Your task to perform on an android device: What's on my calendar tomorrow? Image 0: 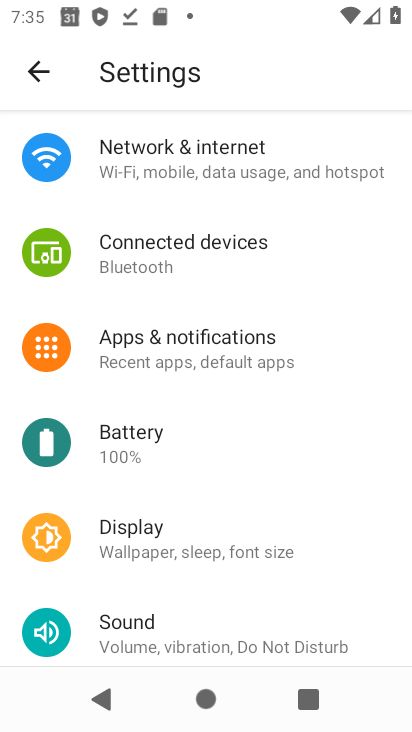
Step 0: press home button
Your task to perform on an android device: What's on my calendar tomorrow? Image 1: 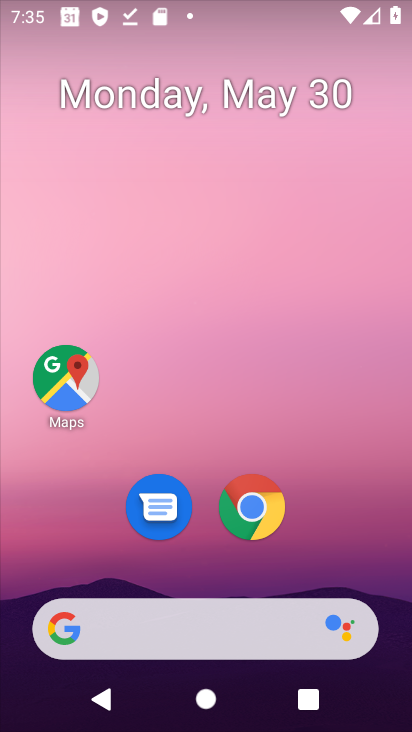
Step 1: drag from (366, 556) to (372, 172)
Your task to perform on an android device: What's on my calendar tomorrow? Image 2: 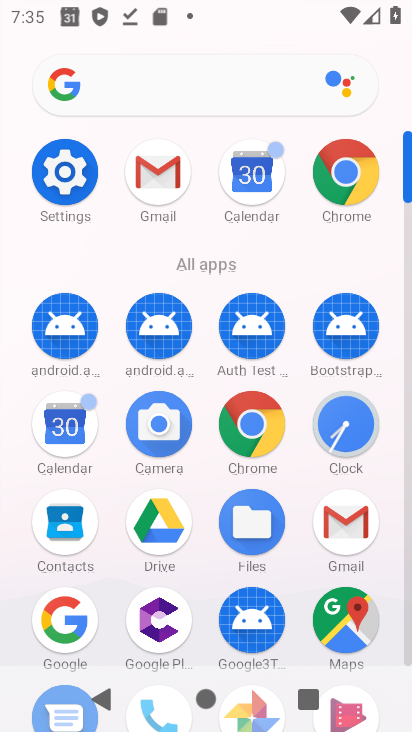
Step 2: click (51, 440)
Your task to perform on an android device: What's on my calendar tomorrow? Image 3: 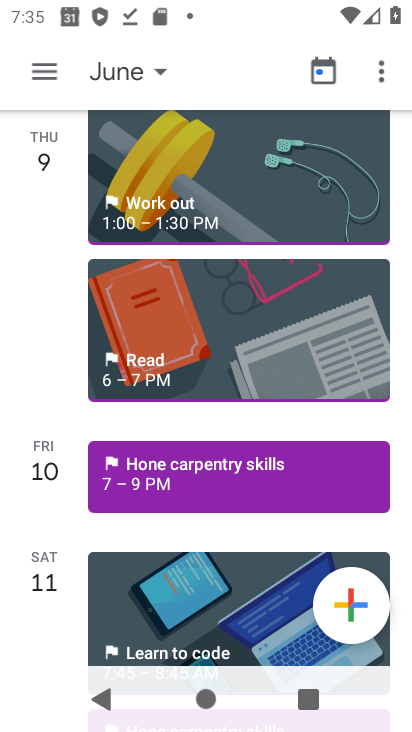
Step 3: click (123, 71)
Your task to perform on an android device: What's on my calendar tomorrow? Image 4: 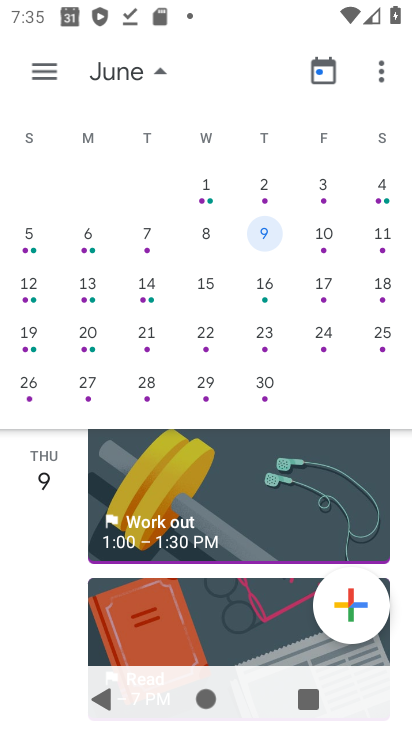
Step 4: drag from (63, 317) to (374, 264)
Your task to perform on an android device: What's on my calendar tomorrow? Image 5: 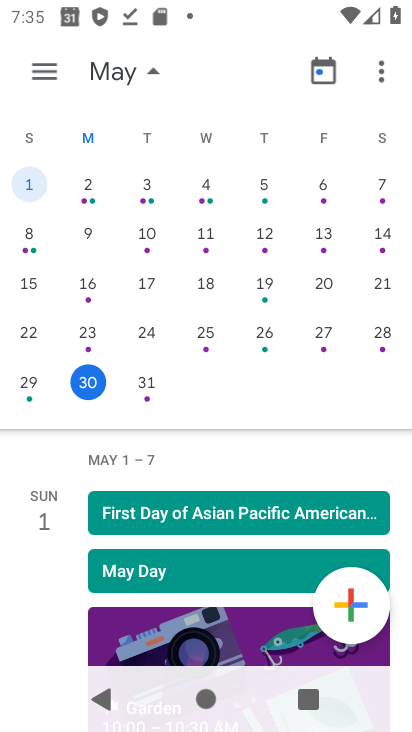
Step 5: click (158, 383)
Your task to perform on an android device: What's on my calendar tomorrow? Image 6: 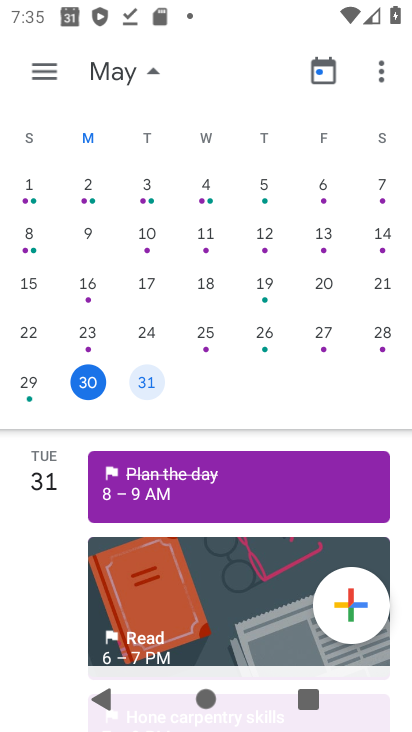
Step 6: task complete